Your task to perform on an android device: Go to Yahoo.com Image 0: 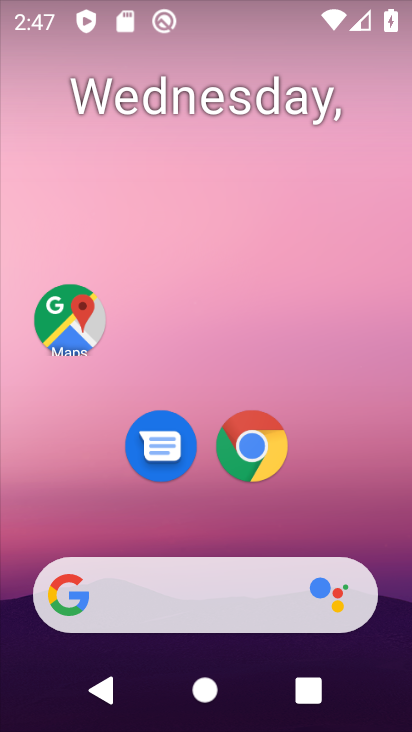
Step 0: click (252, 464)
Your task to perform on an android device: Go to Yahoo.com Image 1: 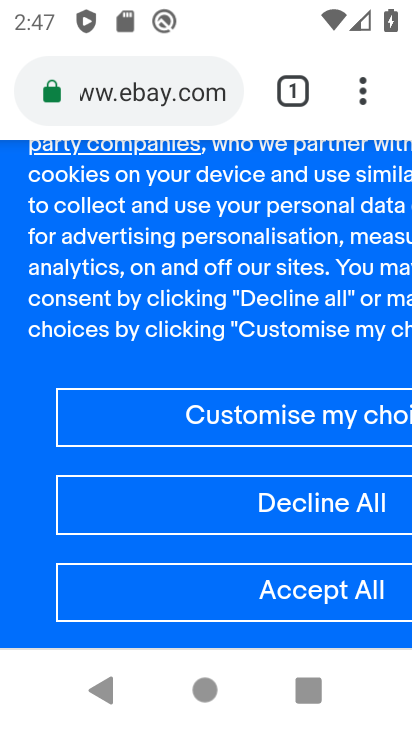
Step 1: click (309, 89)
Your task to perform on an android device: Go to Yahoo.com Image 2: 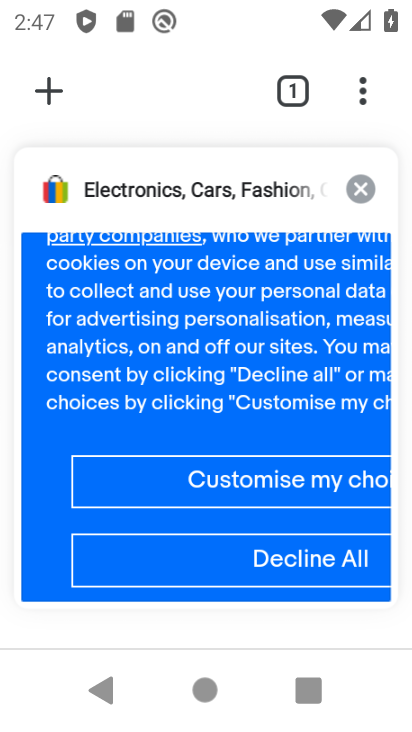
Step 2: click (51, 106)
Your task to perform on an android device: Go to Yahoo.com Image 3: 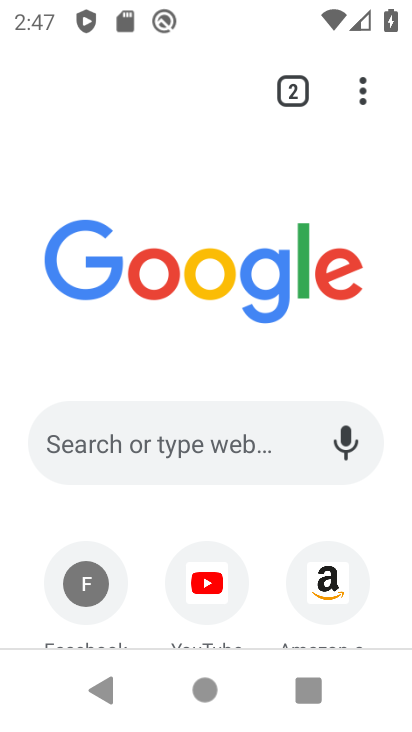
Step 3: drag from (258, 562) to (262, 276)
Your task to perform on an android device: Go to Yahoo.com Image 4: 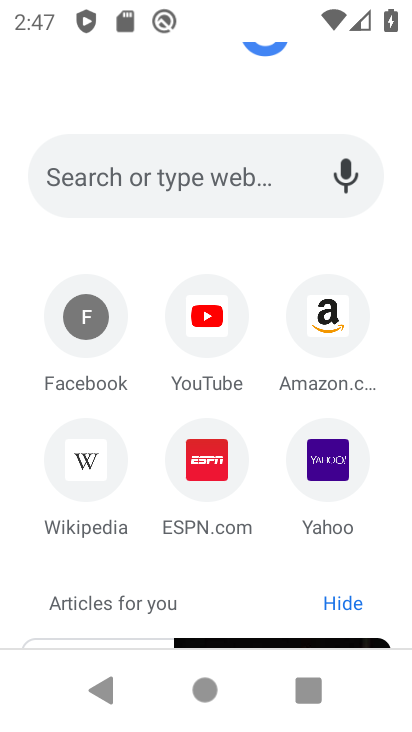
Step 4: click (324, 447)
Your task to perform on an android device: Go to Yahoo.com Image 5: 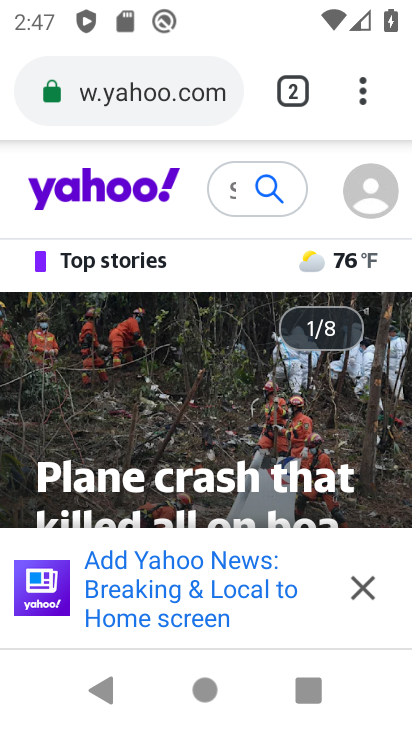
Step 5: task complete